Your task to perform on an android device: turn off smart reply in the gmail app Image 0: 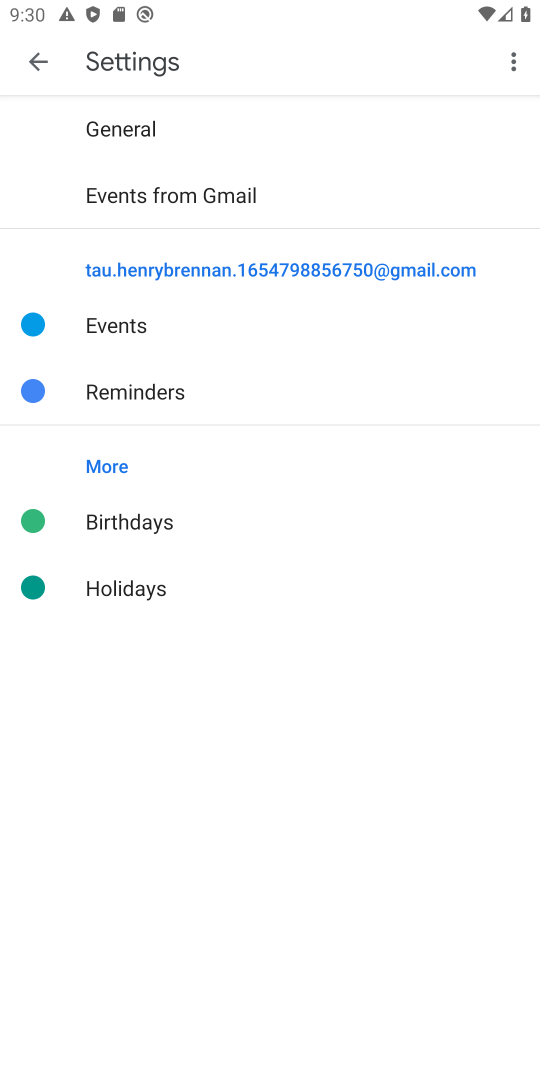
Step 0: press home button
Your task to perform on an android device: turn off smart reply in the gmail app Image 1: 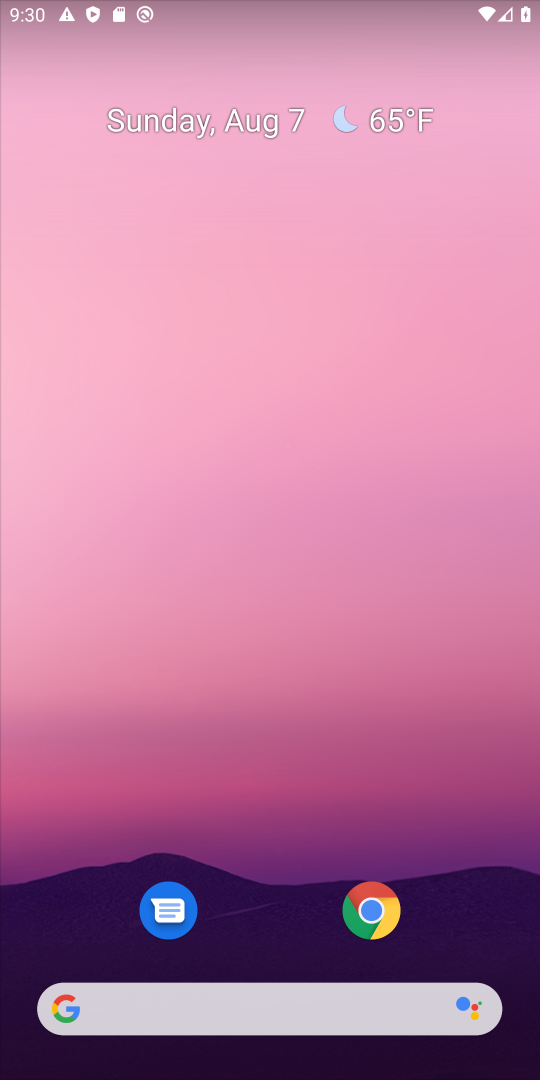
Step 1: drag from (245, 821) to (245, 485)
Your task to perform on an android device: turn off smart reply in the gmail app Image 2: 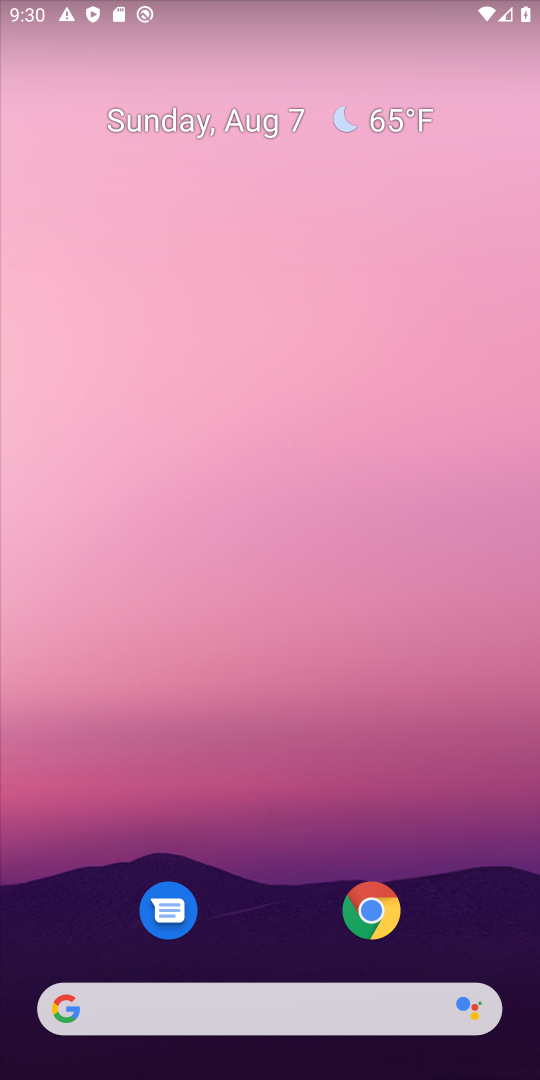
Step 2: drag from (239, 834) to (239, 363)
Your task to perform on an android device: turn off smart reply in the gmail app Image 3: 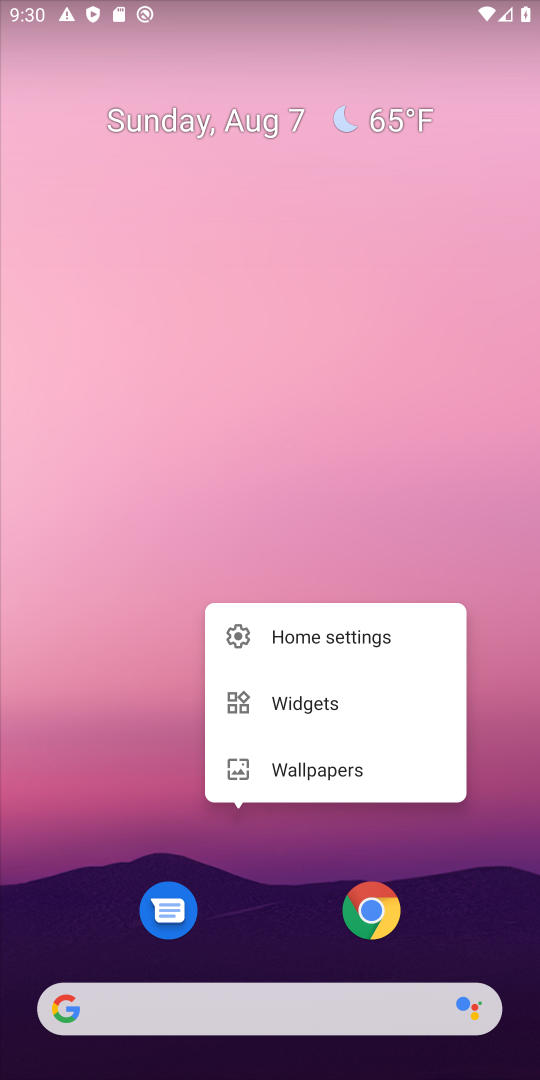
Step 3: drag from (264, 978) to (309, 216)
Your task to perform on an android device: turn off smart reply in the gmail app Image 4: 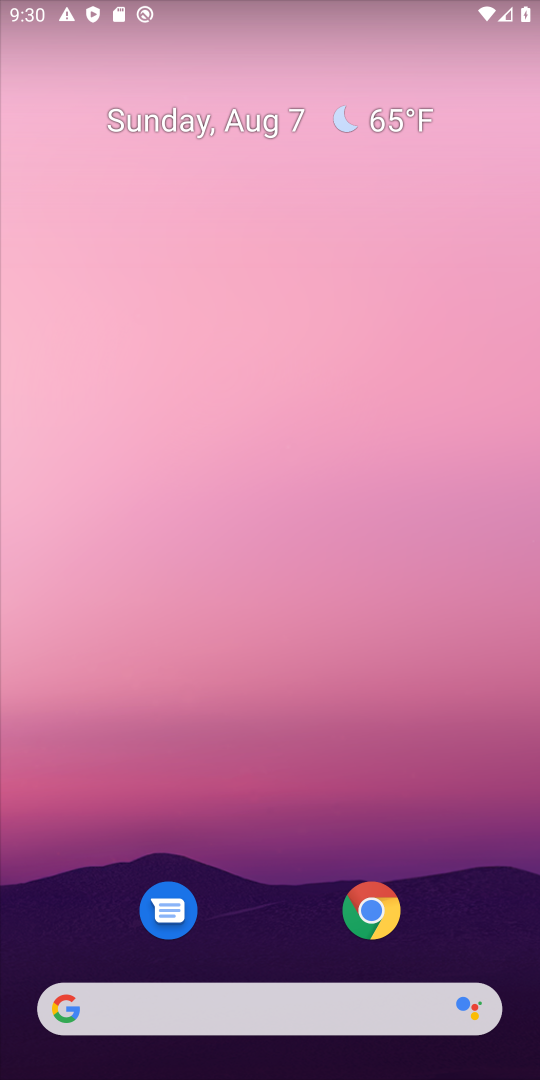
Step 4: drag from (237, 1005) to (229, 260)
Your task to perform on an android device: turn off smart reply in the gmail app Image 5: 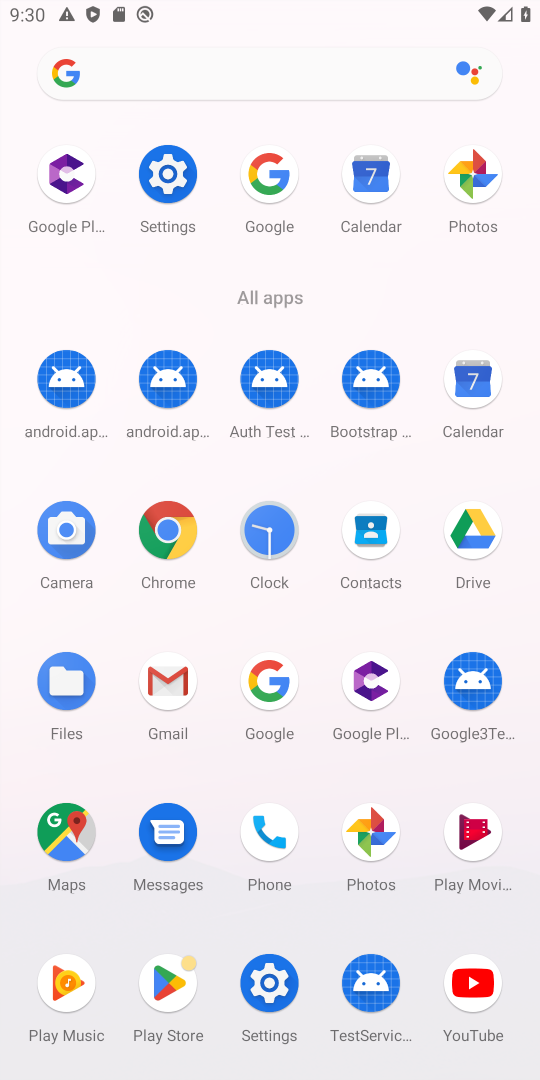
Step 5: click (159, 678)
Your task to perform on an android device: turn off smart reply in the gmail app Image 6: 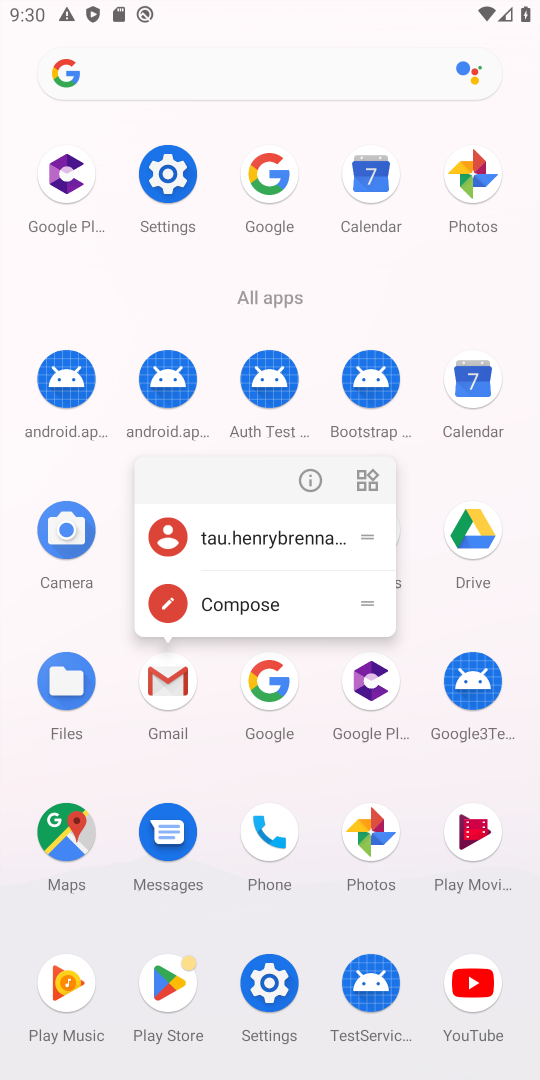
Step 6: click (158, 683)
Your task to perform on an android device: turn off smart reply in the gmail app Image 7: 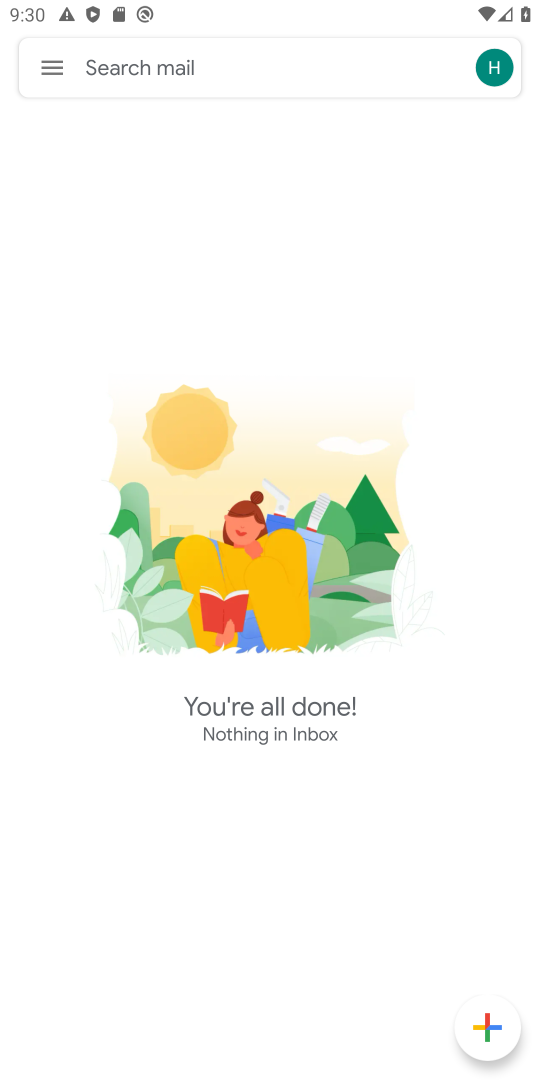
Step 7: click (44, 77)
Your task to perform on an android device: turn off smart reply in the gmail app Image 8: 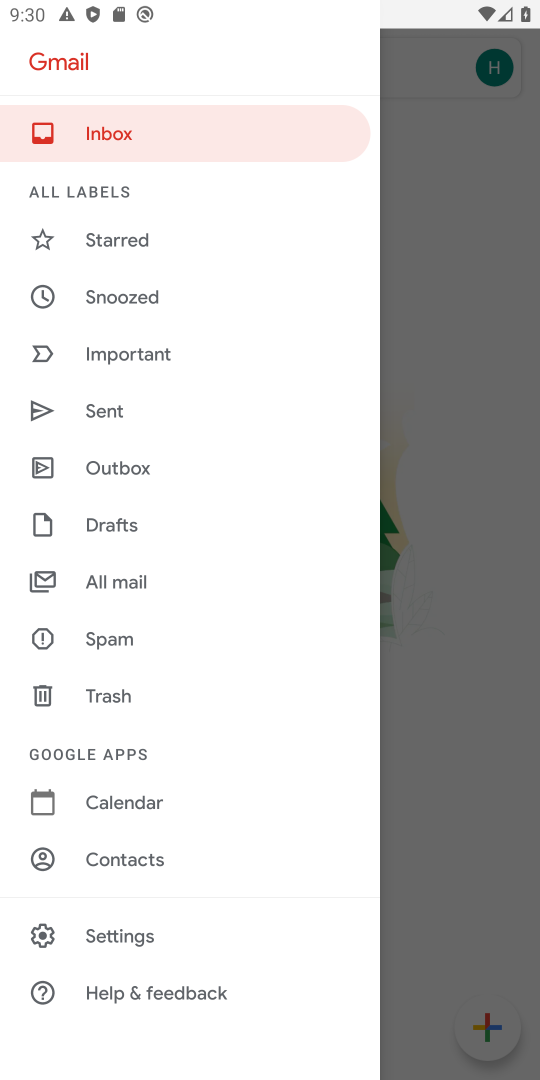
Step 8: click (103, 943)
Your task to perform on an android device: turn off smart reply in the gmail app Image 9: 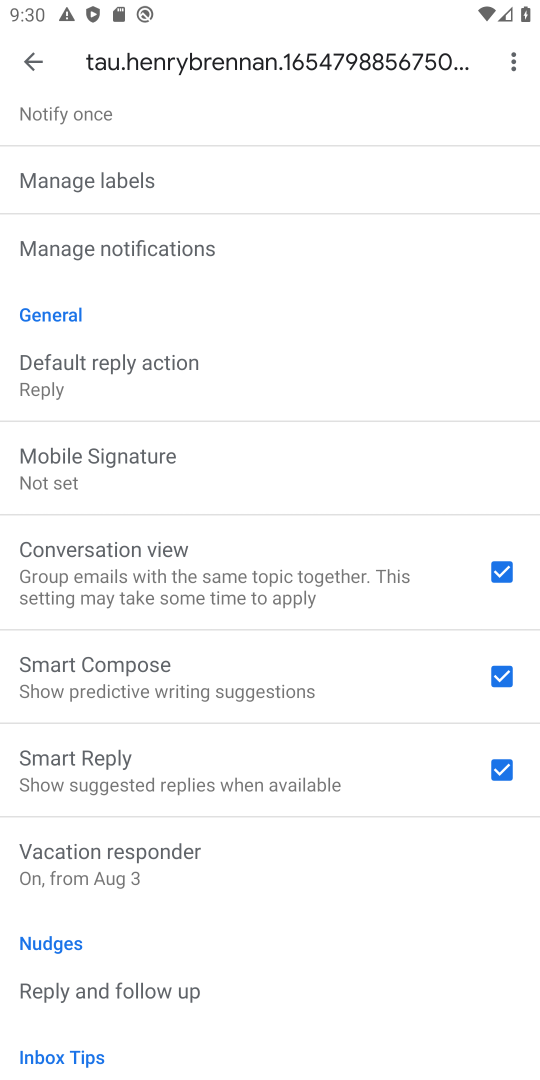
Step 9: click (502, 763)
Your task to perform on an android device: turn off smart reply in the gmail app Image 10: 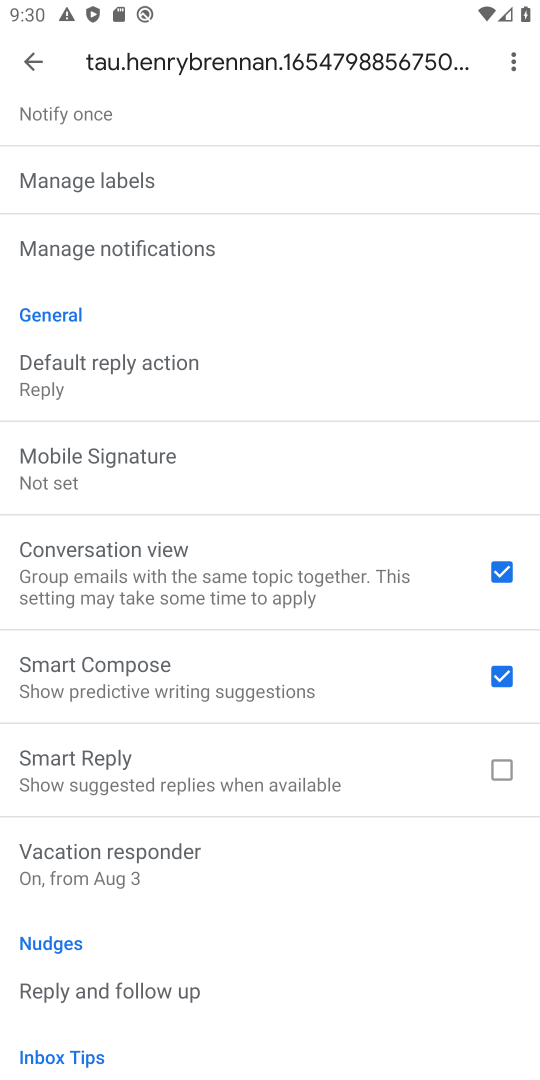
Step 10: task complete